Your task to perform on an android device: Open location settings Image 0: 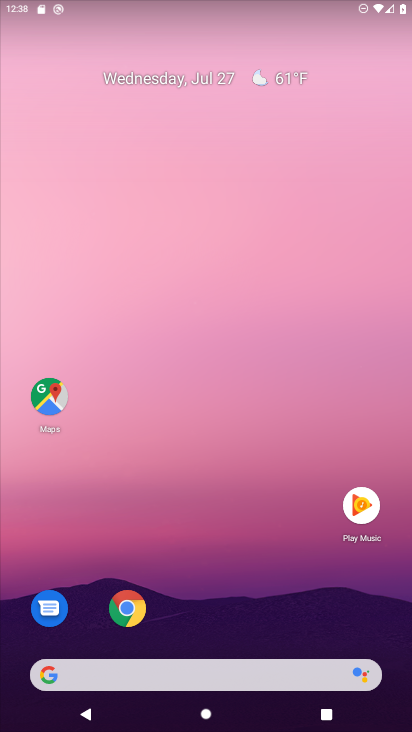
Step 0: press home button
Your task to perform on an android device: Open location settings Image 1: 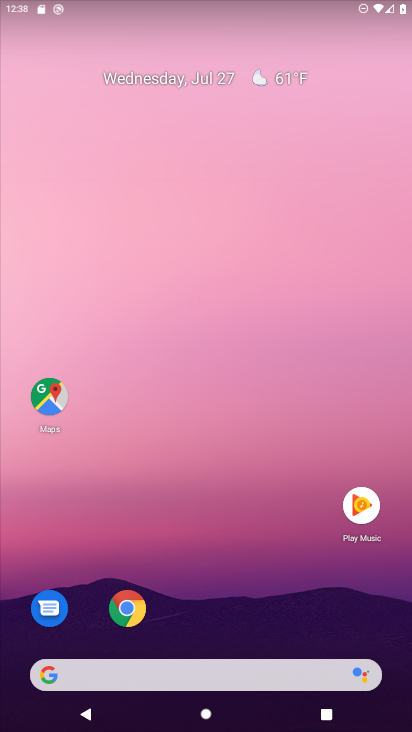
Step 1: drag from (282, 625) to (303, 221)
Your task to perform on an android device: Open location settings Image 2: 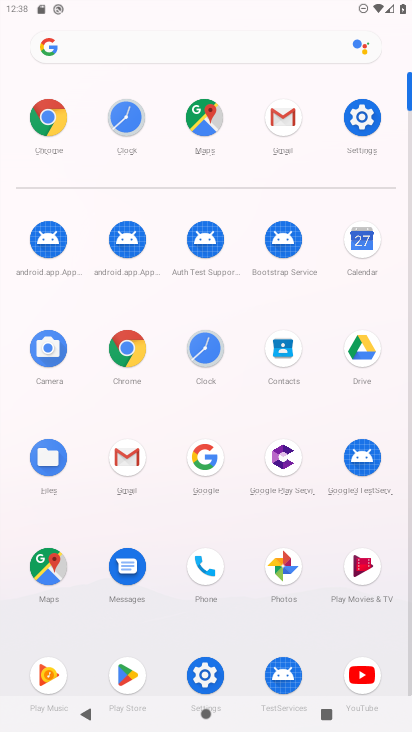
Step 2: click (361, 128)
Your task to perform on an android device: Open location settings Image 3: 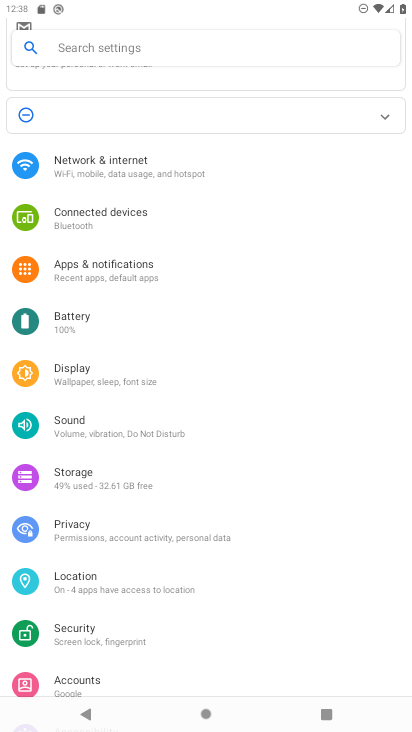
Step 3: click (359, 259)
Your task to perform on an android device: Open location settings Image 4: 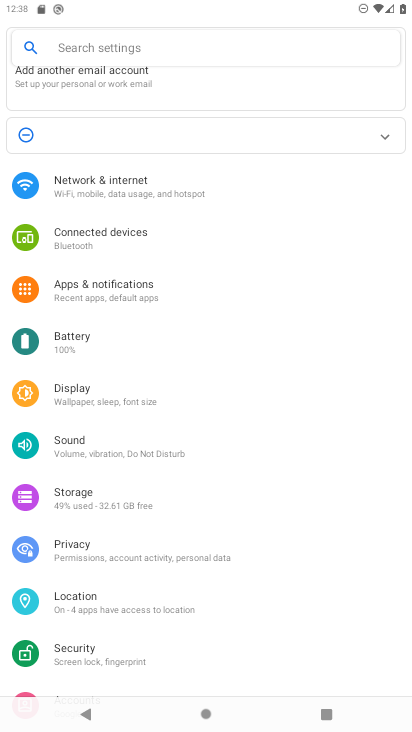
Step 4: drag from (345, 227) to (328, 394)
Your task to perform on an android device: Open location settings Image 5: 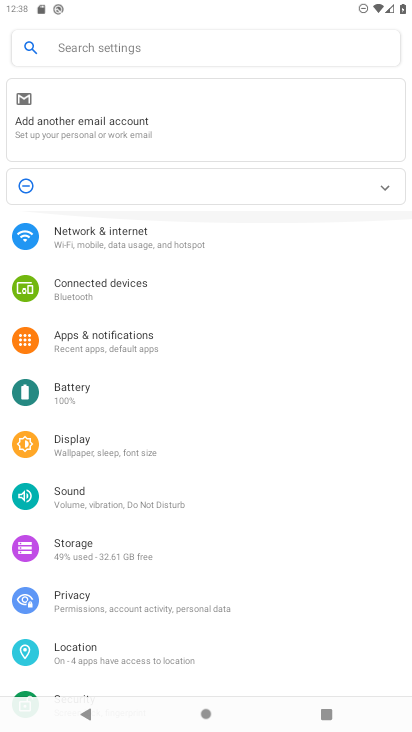
Step 5: drag from (319, 475) to (323, 419)
Your task to perform on an android device: Open location settings Image 6: 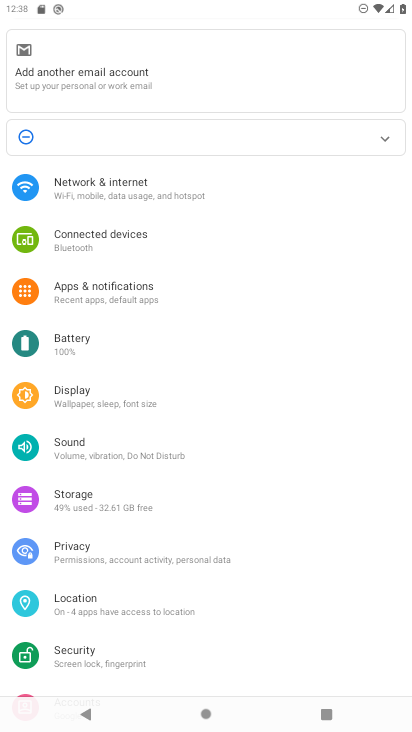
Step 6: drag from (311, 467) to (312, 415)
Your task to perform on an android device: Open location settings Image 7: 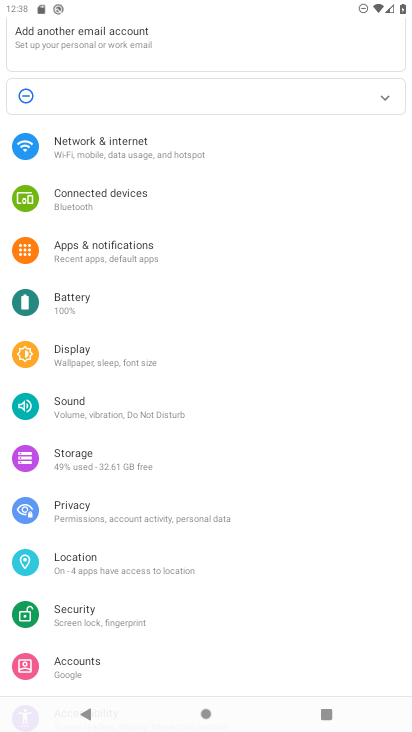
Step 7: drag from (316, 470) to (314, 414)
Your task to perform on an android device: Open location settings Image 8: 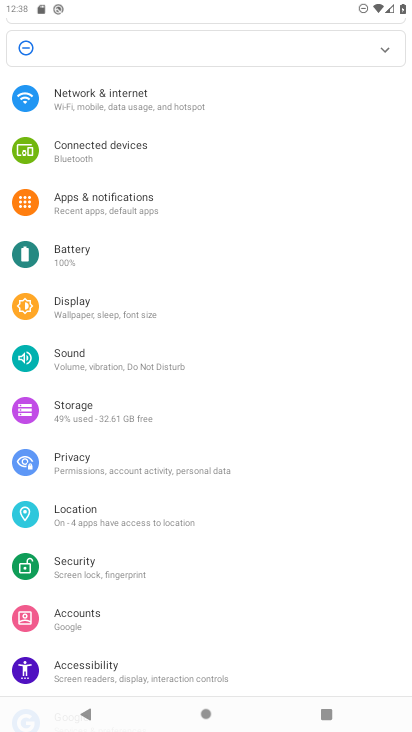
Step 8: drag from (311, 466) to (311, 421)
Your task to perform on an android device: Open location settings Image 9: 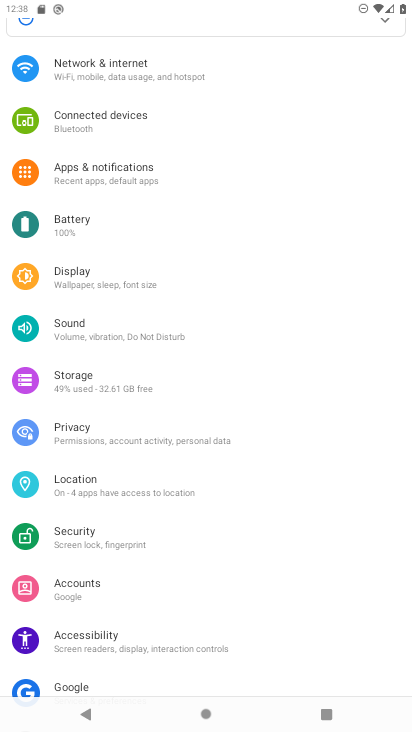
Step 9: drag from (313, 500) to (319, 423)
Your task to perform on an android device: Open location settings Image 10: 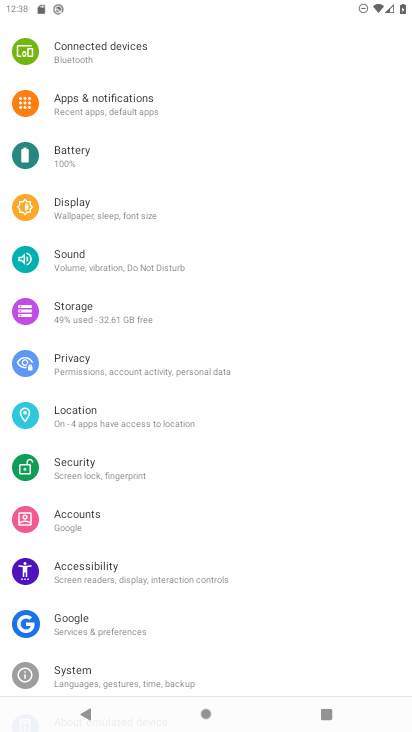
Step 10: drag from (310, 500) to (321, 423)
Your task to perform on an android device: Open location settings Image 11: 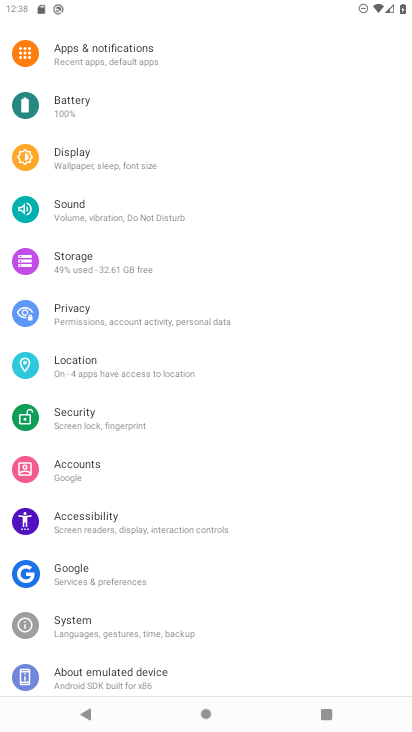
Step 11: drag from (316, 514) to (320, 427)
Your task to perform on an android device: Open location settings Image 12: 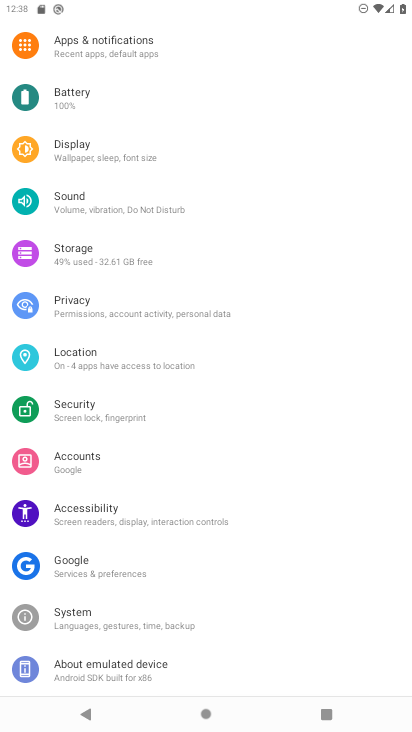
Step 12: click (262, 357)
Your task to perform on an android device: Open location settings Image 13: 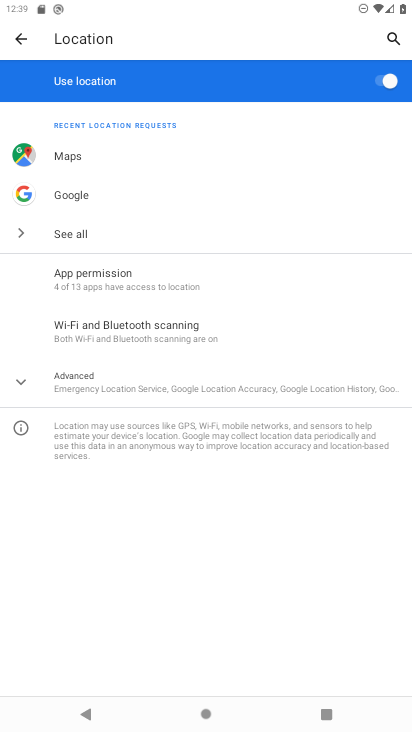
Step 13: task complete